Your task to perform on an android device: turn off priority inbox in the gmail app Image 0: 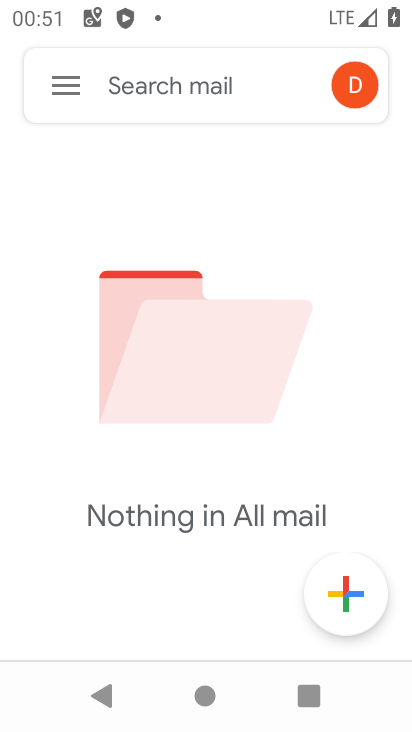
Step 0: click (70, 89)
Your task to perform on an android device: turn off priority inbox in the gmail app Image 1: 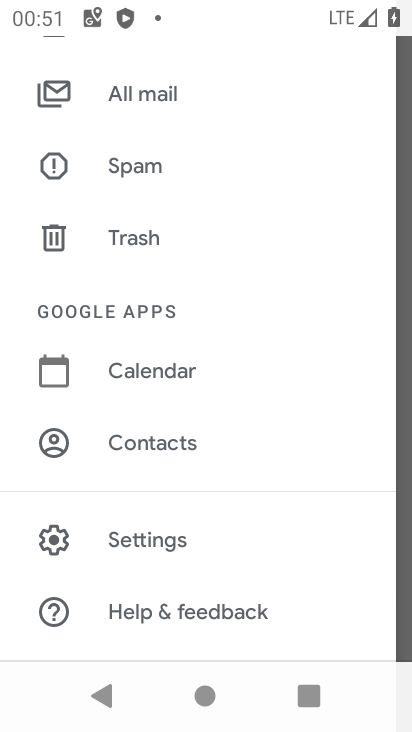
Step 1: drag from (258, 223) to (265, 649)
Your task to perform on an android device: turn off priority inbox in the gmail app Image 2: 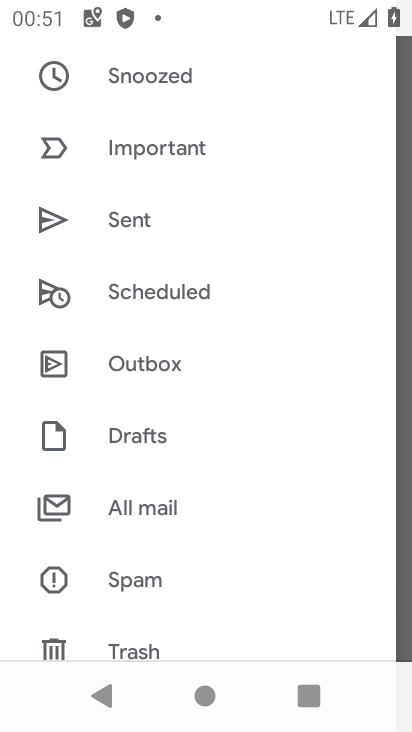
Step 2: drag from (274, 640) to (259, 17)
Your task to perform on an android device: turn off priority inbox in the gmail app Image 3: 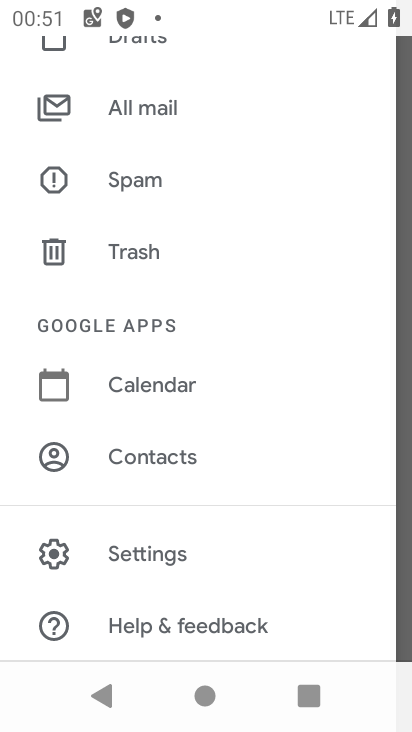
Step 3: click (114, 554)
Your task to perform on an android device: turn off priority inbox in the gmail app Image 4: 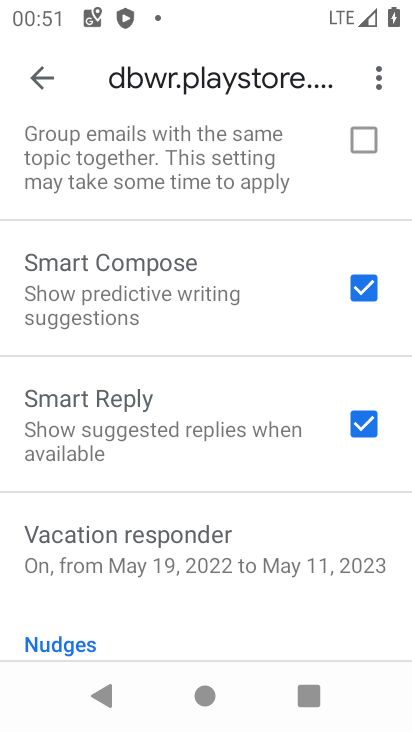
Step 4: drag from (266, 154) to (235, 481)
Your task to perform on an android device: turn off priority inbox in the gmail app Image 5: 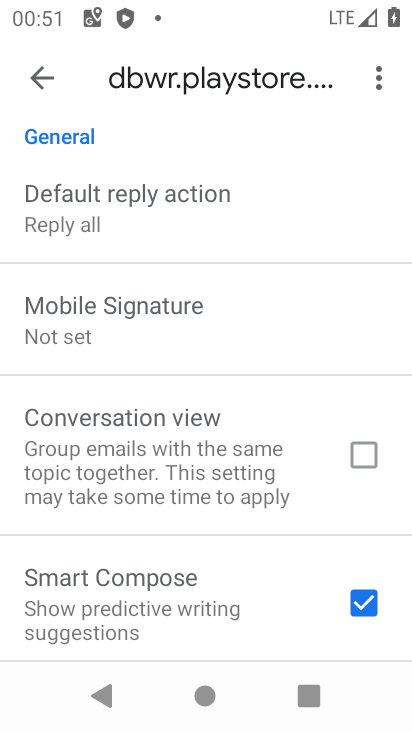
Step 5: drag from (291, 219) to (283, 560)
Your task to perform on an android device: turn off priority inbox in the gmail app Image 6: 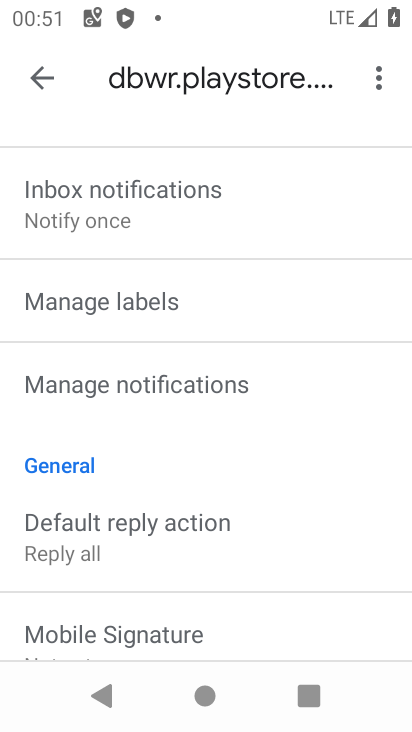
Step 6: drag from (280, 192) to (245, 504)
Your task to perform on an android device: turn off priority inbox in the gmail app Image 7: 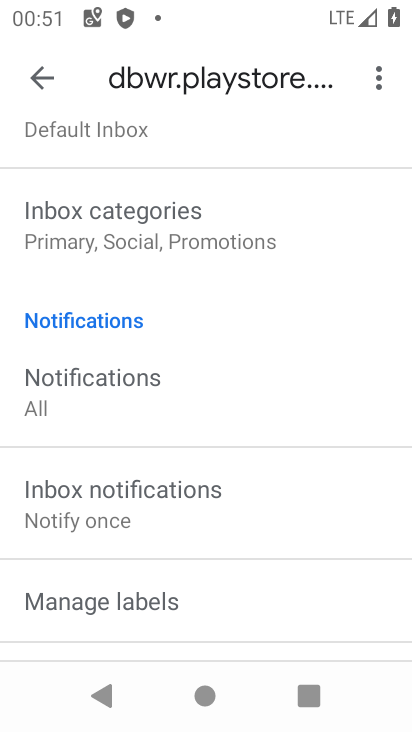
Step 7: drag from (286, 235) to (260, 476)
Your task to perform on an android device: turn off priority inbox in the gmail app Image 8: 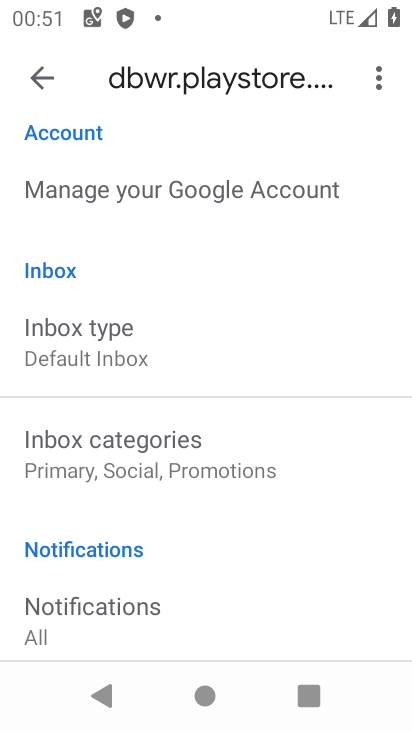
Step 8: click (56, 333)
Your task to perform on an android device: turn off priority inbox in the gmail app Image 9: 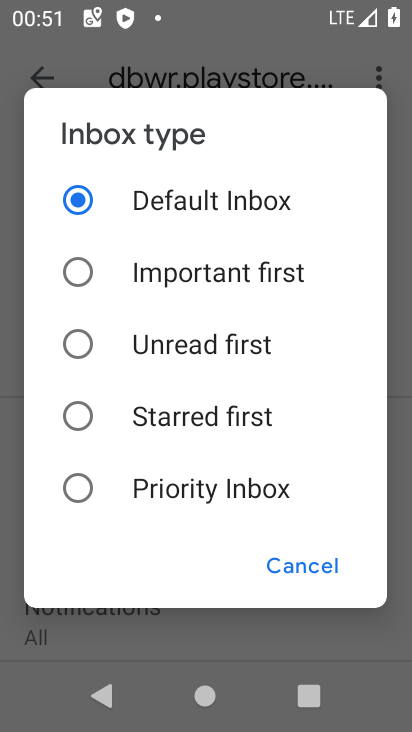
Step 9: task complete